Your task to perform on an android device: Open maps Image 0: 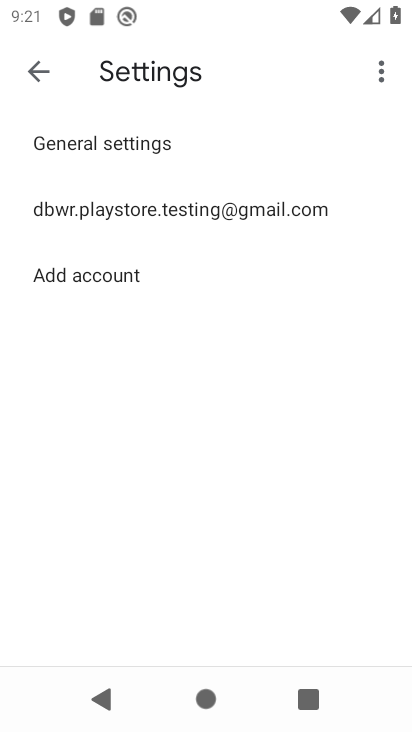
Step 0: press home button
Your task to perform on an android device: Open maps Image 1: 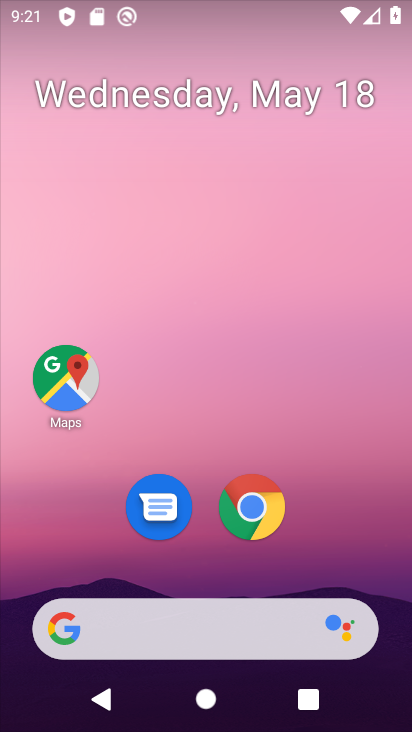
Step 1: click (71, 361)
Your task to perform on an android device: Open maps Image 2: 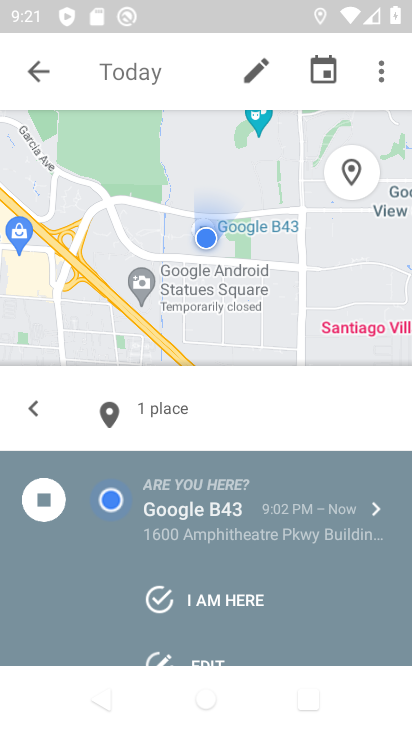
Step 2: task complete